Your task to perform on an android device: Search for a custom-made wallet on Etsy Image 0: 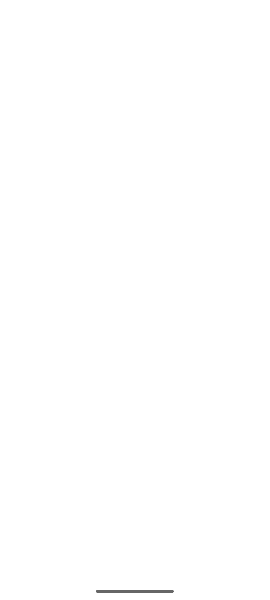
Step 0: press home button
Your task to perform on an android device: Search for a custom-made wallet on Etsy Image 1: 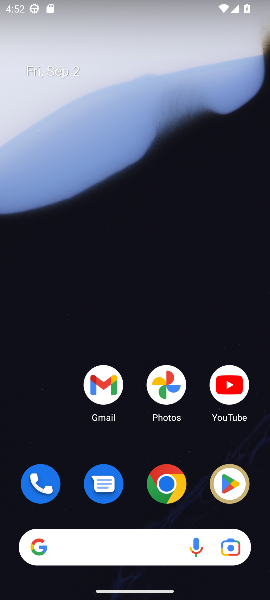
Step 1: click (165, 494)
Your task to perform on an android device: Search for a custom-made wallet on Etsy Image 2: 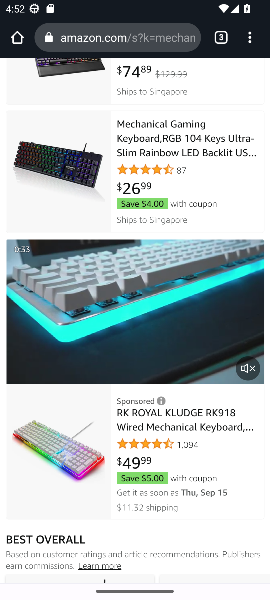
Step 2: click (127, 37)
Your task to perform on an android device: Search for a custom-made wallet on Etsy Image 3: 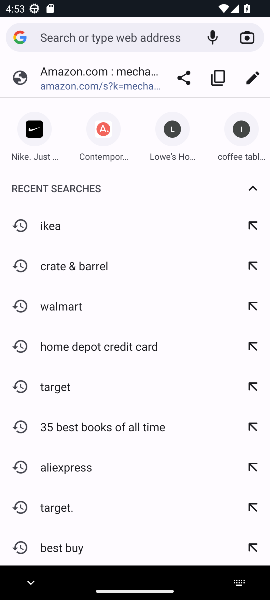
Step 3: type "Etsy"
Your task to perform on an android device: Search for a custom-made wallet on Etsy Image 4: 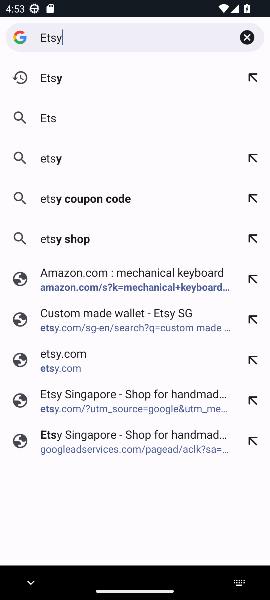
Step 4: press enter
Your task to perform on an android device: Search for a custom-made wallet on Etsy Image 5: 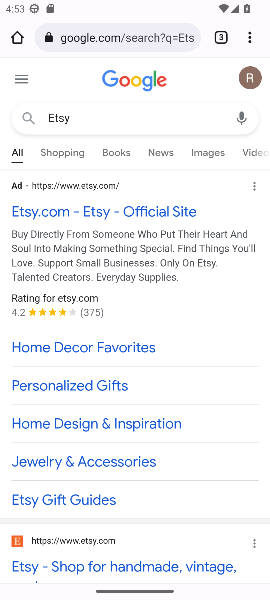
Step 5: click (161, 214)
Your task to perform on an android device: Search for a custom-made wallet on Etsy Image 6: 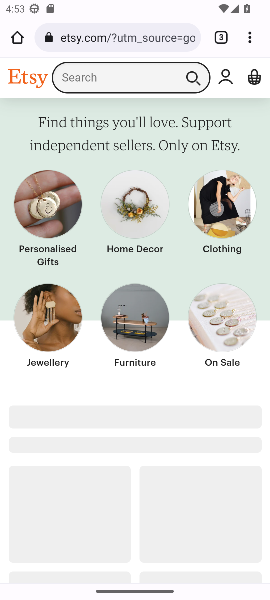
Step 6: click (150, 81)
Your task to perform on an android device: Search for a custom-made wallet on Etsy Image 7: 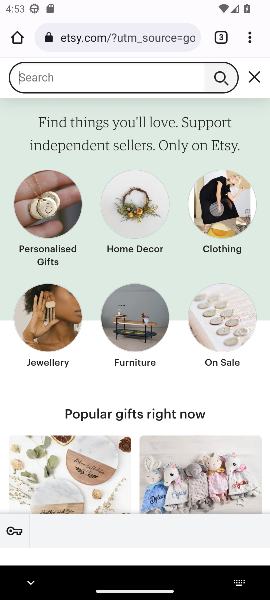
Step 7: type "custom made wallet"
Your task to perform on an android device: Search for a custom-made wallet on Etsy Image 8: 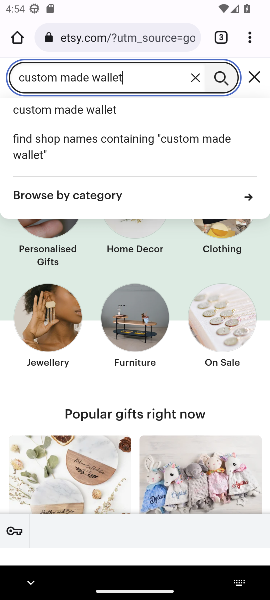
Step 8: click (146, 76)
Your task to perform on an android device: Search for a custom-made wallet on Etsy Image 9: 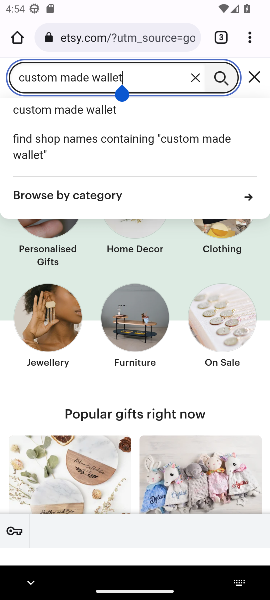
Step 9: drag from (87, 346) to (145, 207)
Your task to perform on an android device: Search for a custom-made wallet on Etsy Image 10: 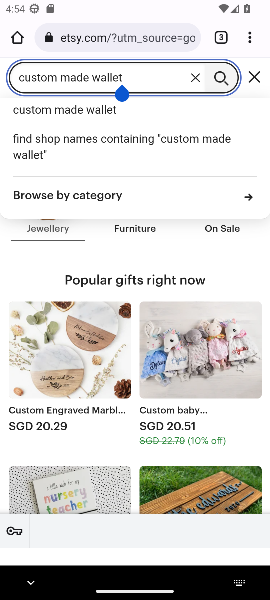
Step 10: click (186, 135)
Your task to perform on an android device: Search for a custom-made wallet on Etsy Image 11: 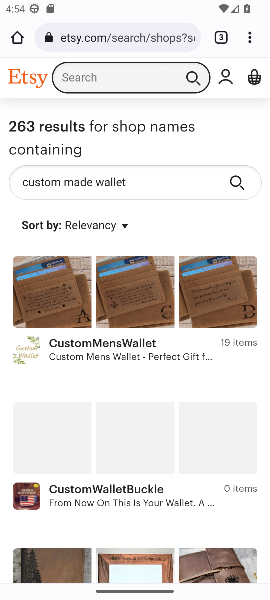
Step 11: task complete